Your task to perform on an android device: clear history in the chrome app Image 0: 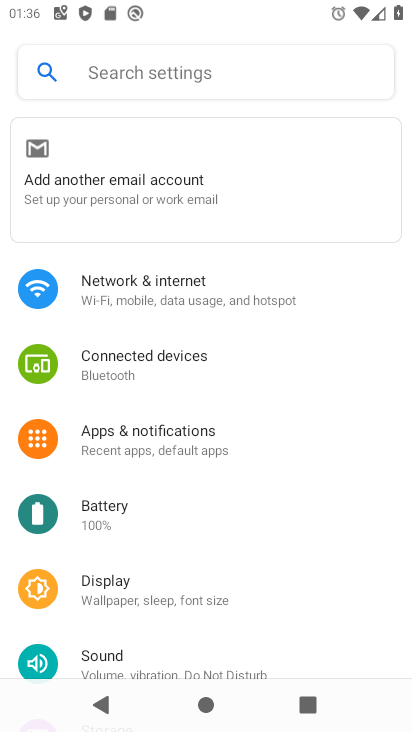
Step 0: press home button
Your task to perform on an android device: clear history in the chrome app Image 1: 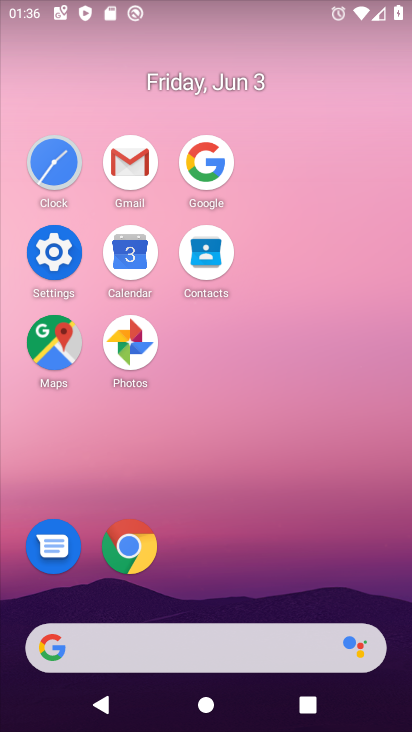
Step 1: click (131, 549)
Your task to perform on an android device: clear history in the chrome app Image 2: 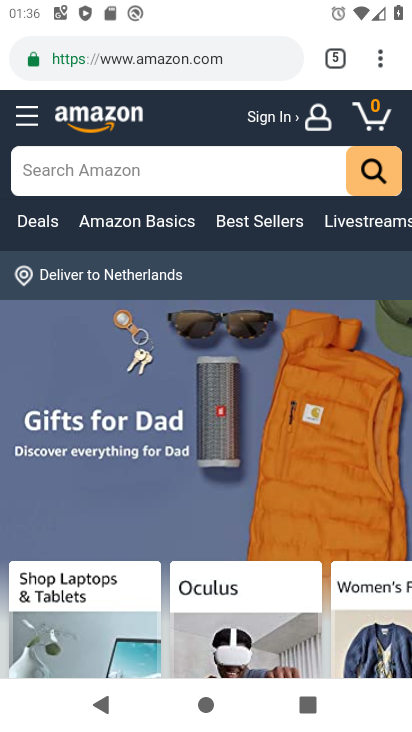
Step 2: click (379, 51)
Your task to perform on an android device: clear history in the chrome app Image 3: 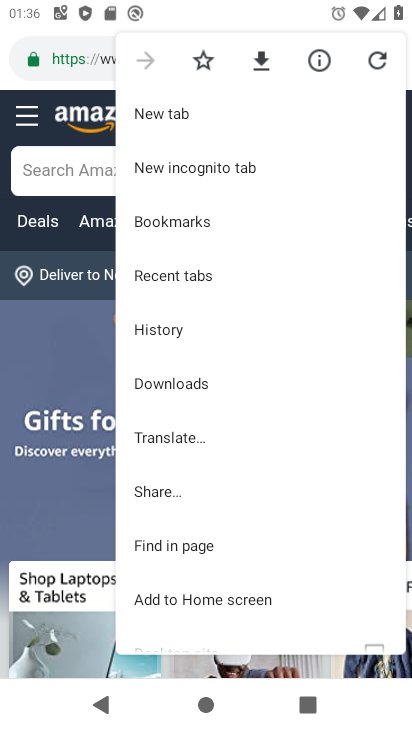
Step 3: click (202, 331)
Your task to perform on an android device: clear history in the chrome app Image 4: 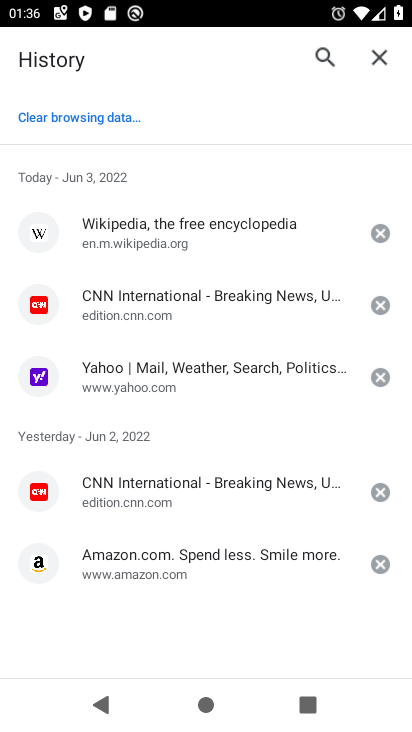
Step 4: click (94, 119)
Your task to perform on an android device: clear history in the chrome app Image 5: 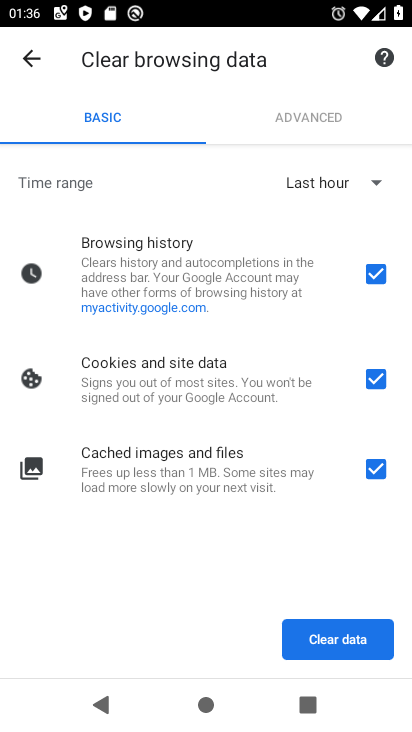
Step 5: click (327, 625)
Your task to perform on an android device: clear history in the chrome app Image 6: 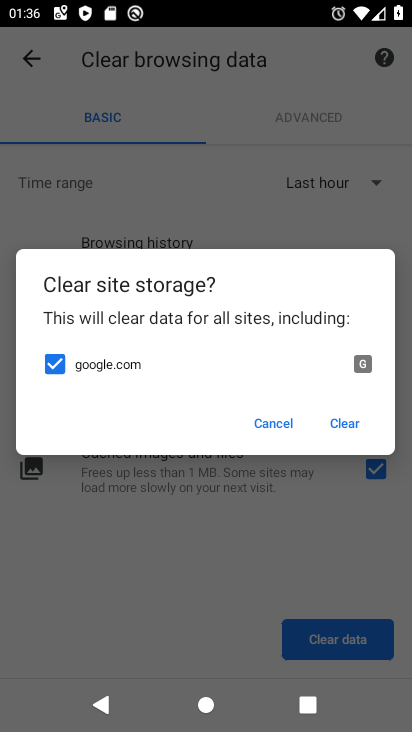
Step 6: click (360, 407)
Your task to perform on an android device: clear history in the chrome app Image 7: 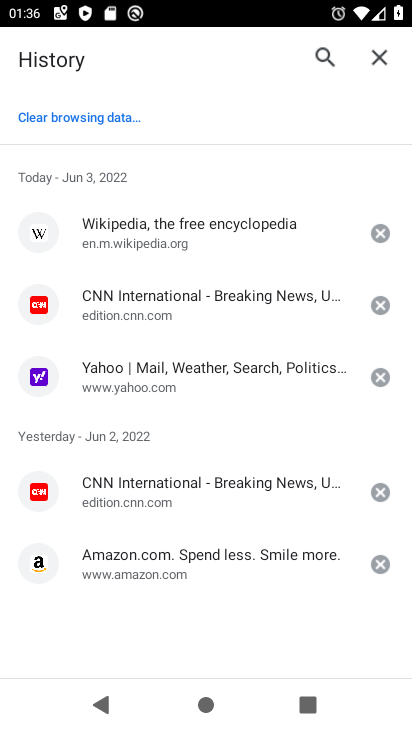
Step 7: task complete